Your task to perform on an android device: allow notifications from all sites in the chrome app Image 0: 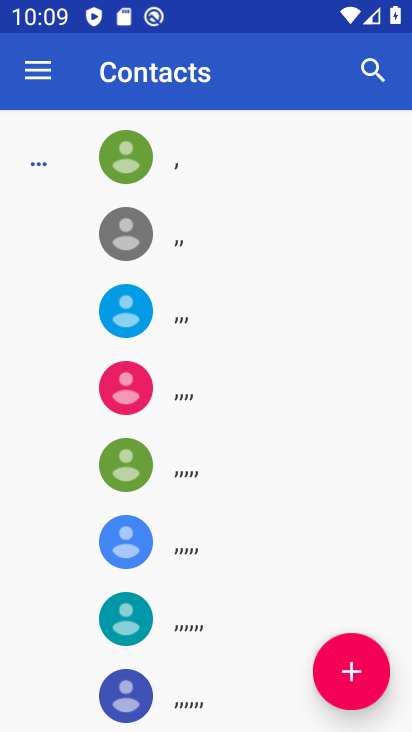
Step 0: press home button
Your task to perform on an android device: allow notifications from all sites in the chrome app Image 1: 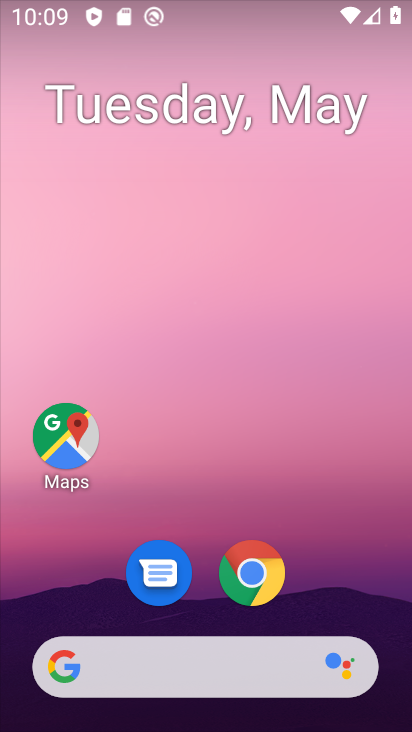
Step 1: drag from (322, 565) to (270, 104)
Your task to perform on an android device: allow notifications from all sites in the chrome app Image 2: 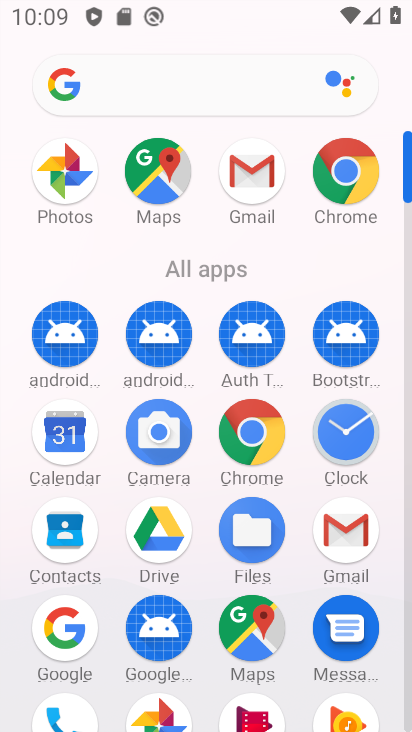
Step 2: click (256, 422)
Your task to perform on an android device: allow notifications from all sites in the chrome app Image 3: 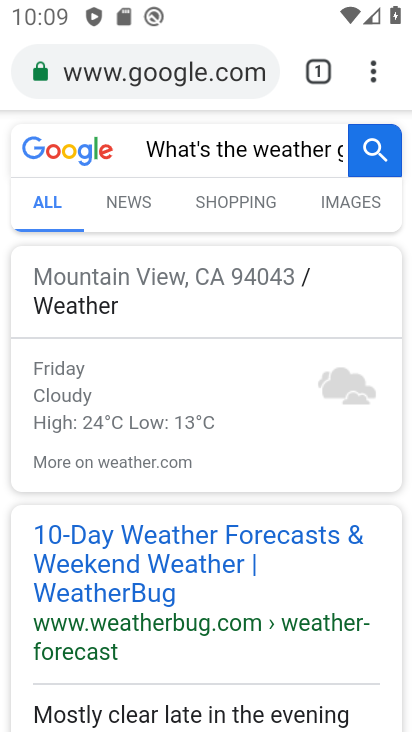
Step 3: drag from (373, 56) to (123, 567)
Your task to perform on an android device: allow notifications from all sites in the chrome app Image 4: 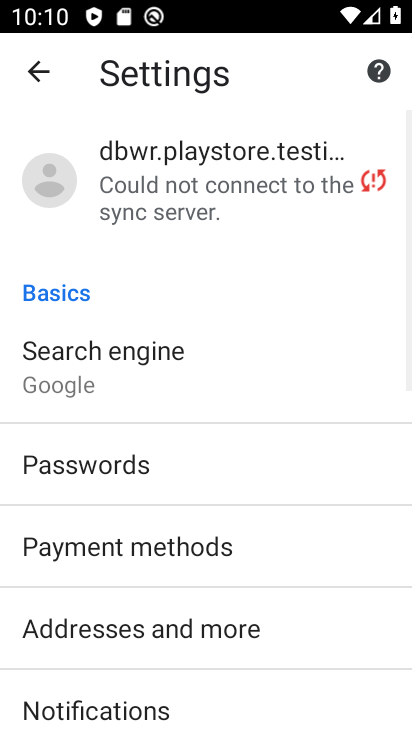
Step 4: drag from (231, 654) to (216, 327)
Your task to perform on an android device: allow notifications from all sites in the chrome app Image 5: 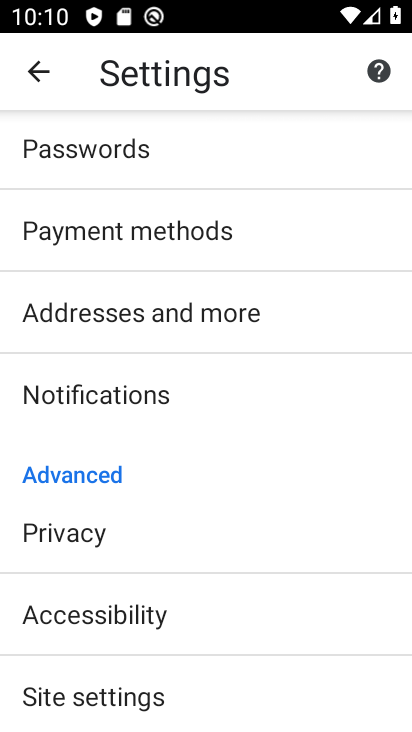
Step 5: click (121, 705)
Your task to perform on an android device: allow notifications from all sites in the chrome app Image 6: 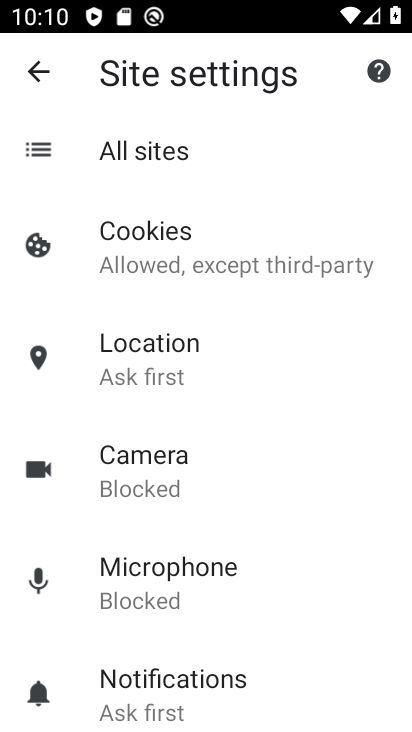
Step 6: click (132, 204)
Your task to perform on an android device: allow notifications from all sites in the chrome app Image 7: 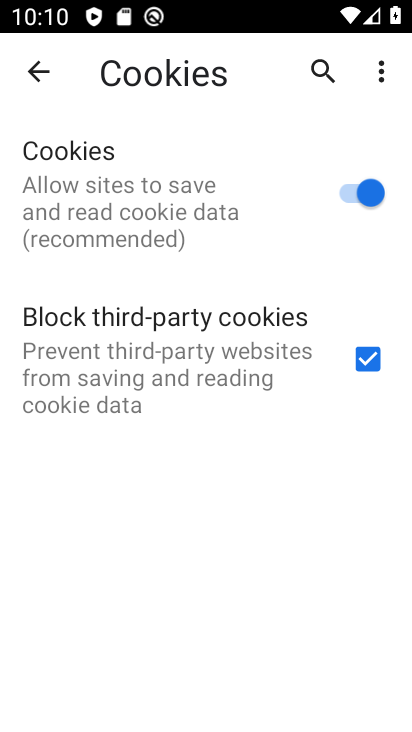
Step 7: task complete